Your task to perform on an android device: What's US dollar exchange rate against the Japanese Yen? Image 0: 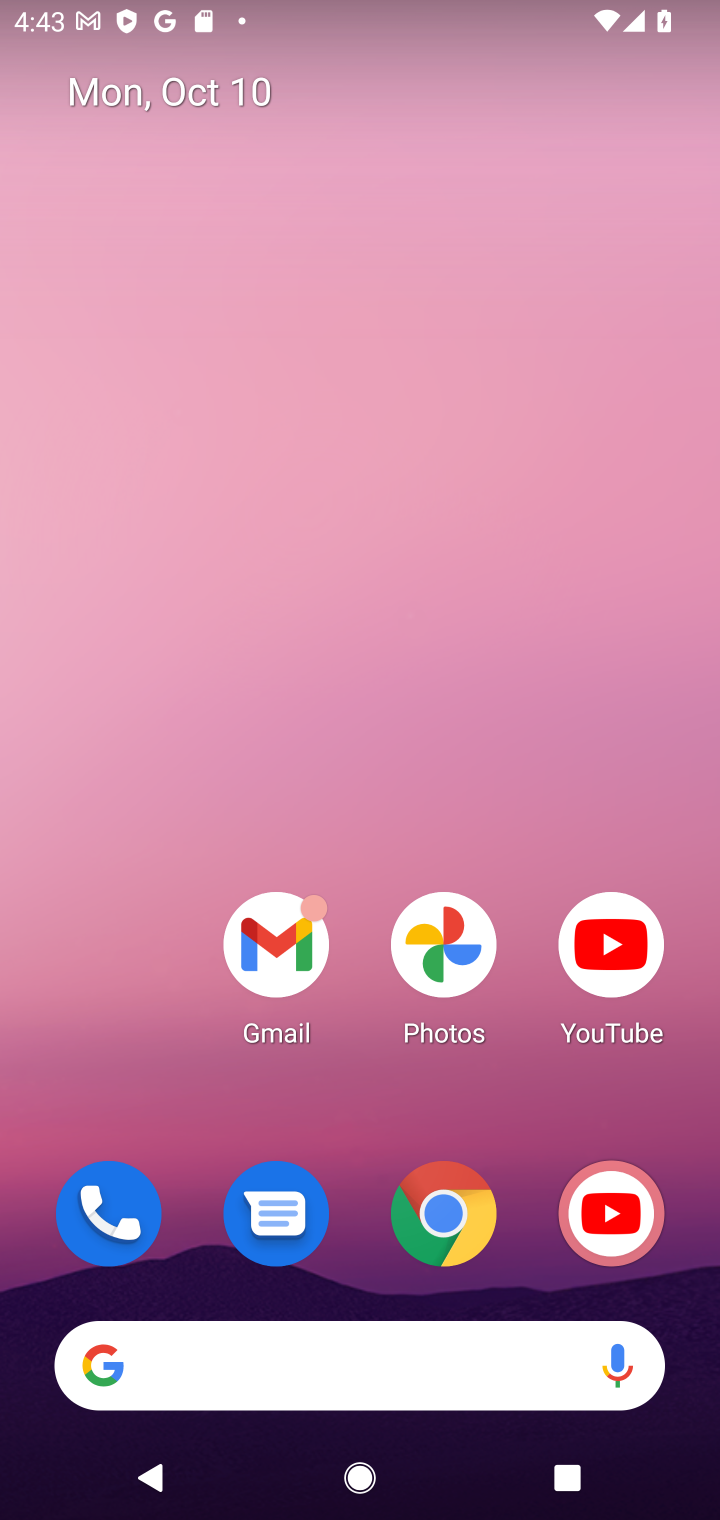
Step 0: click (358, 1364)
Your task to perform on an android device: What's US dollar exchange rate against the Japanese Yen? Image 1: 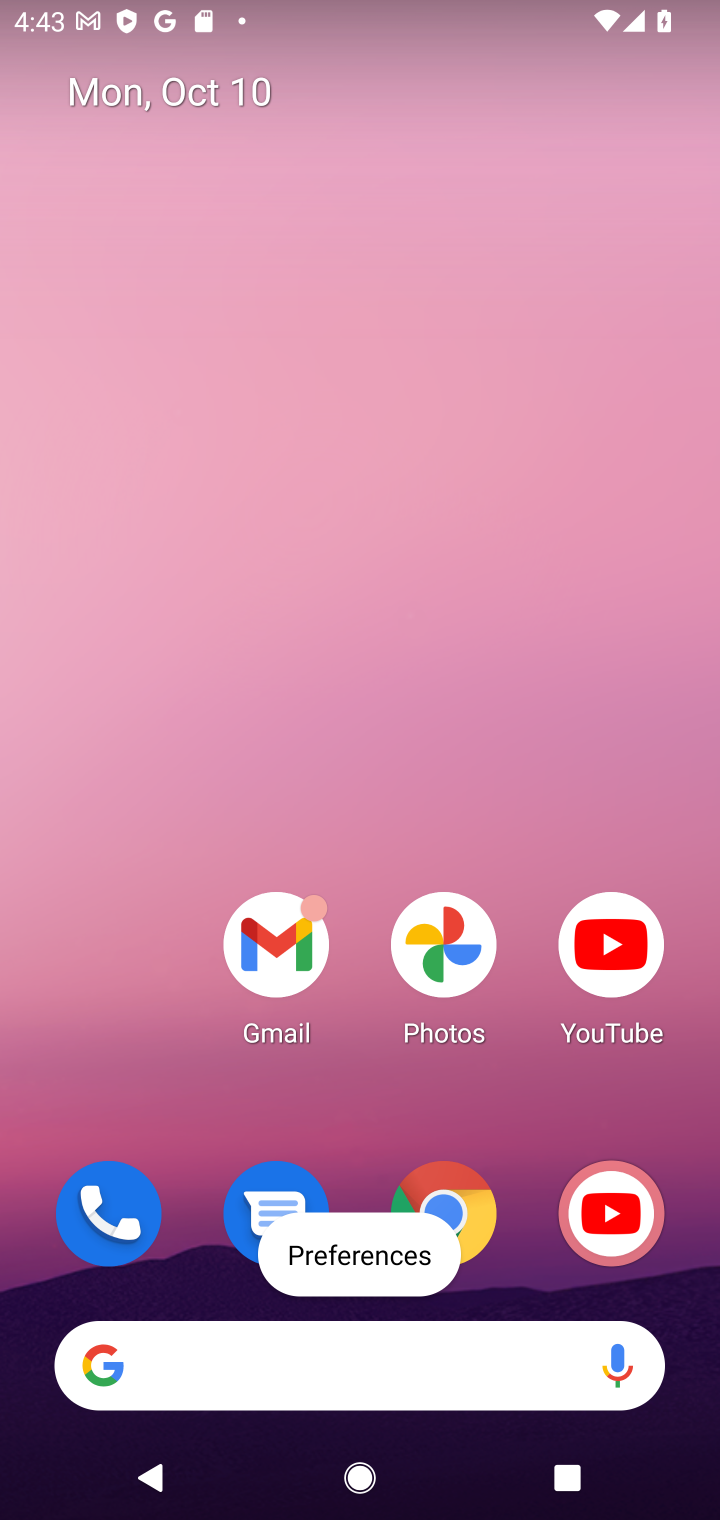
Step 1: click (351, 1380)
Your task to perform on an android device: What's US dollar exchange rate against the Japanese Yen? Image 2: 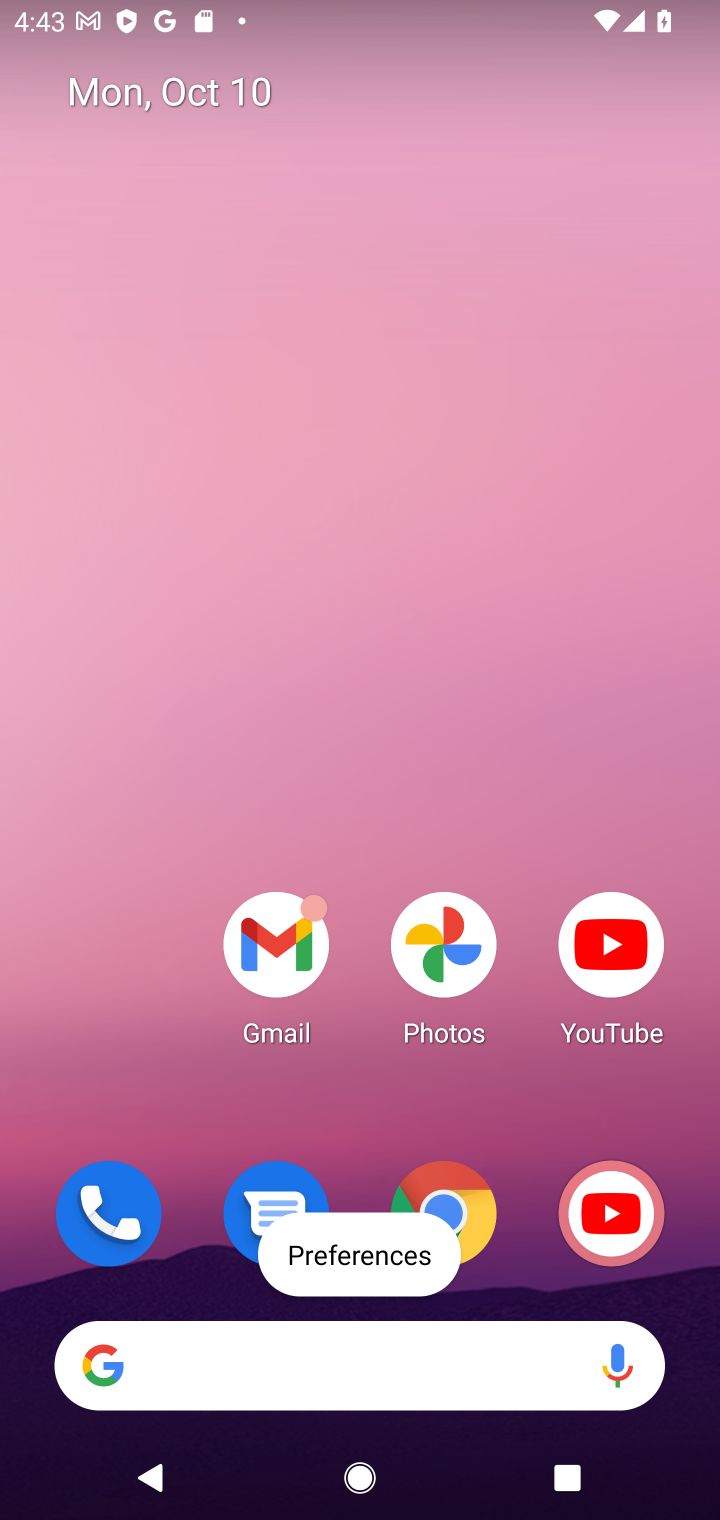
Step 2: click (351, 1380)
Your task to perform on an android device: What's US dollar exchange rate against the Japanese Yen? Image 3: 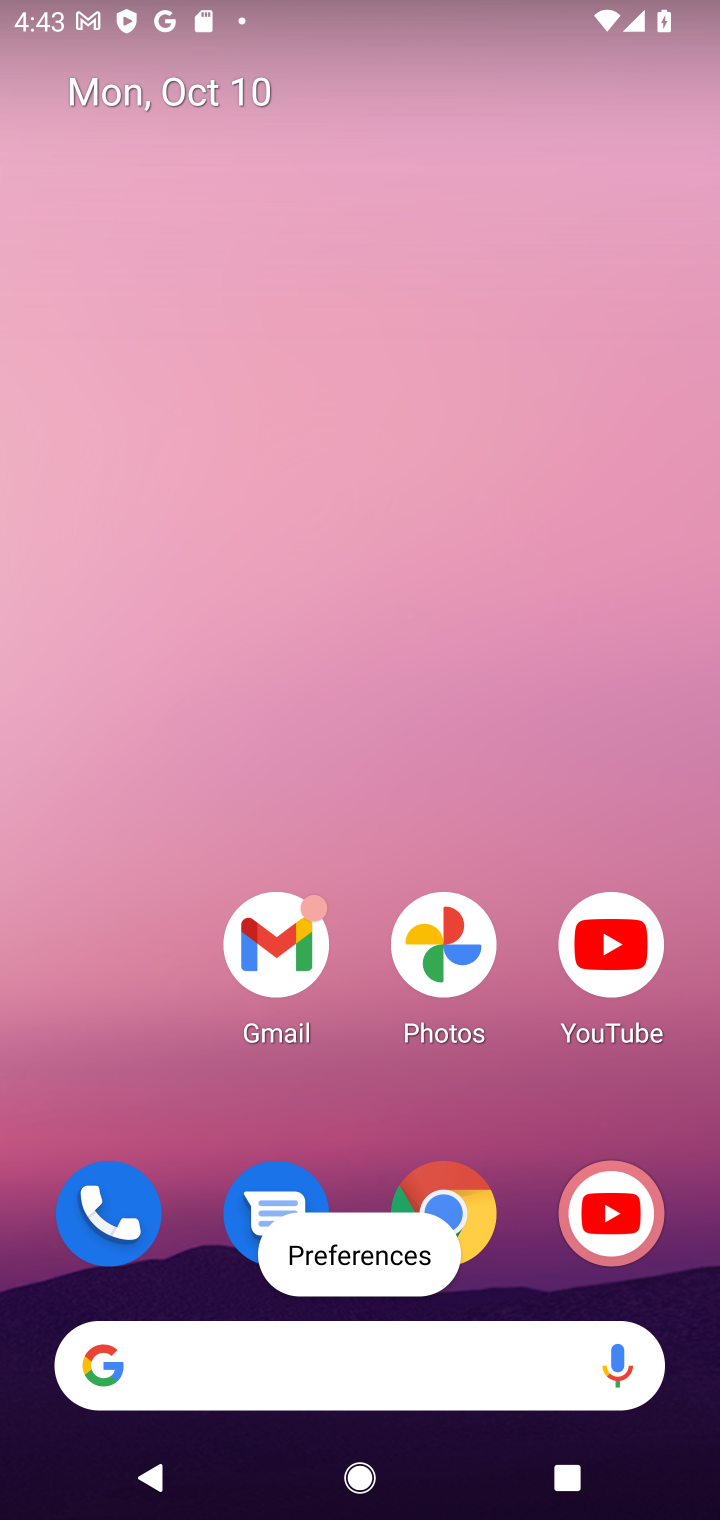
Step 3: click (351, 1380)
Your task to perform on an android device: What's US dollar exchange rate against the Japanese Yen? Image 4: 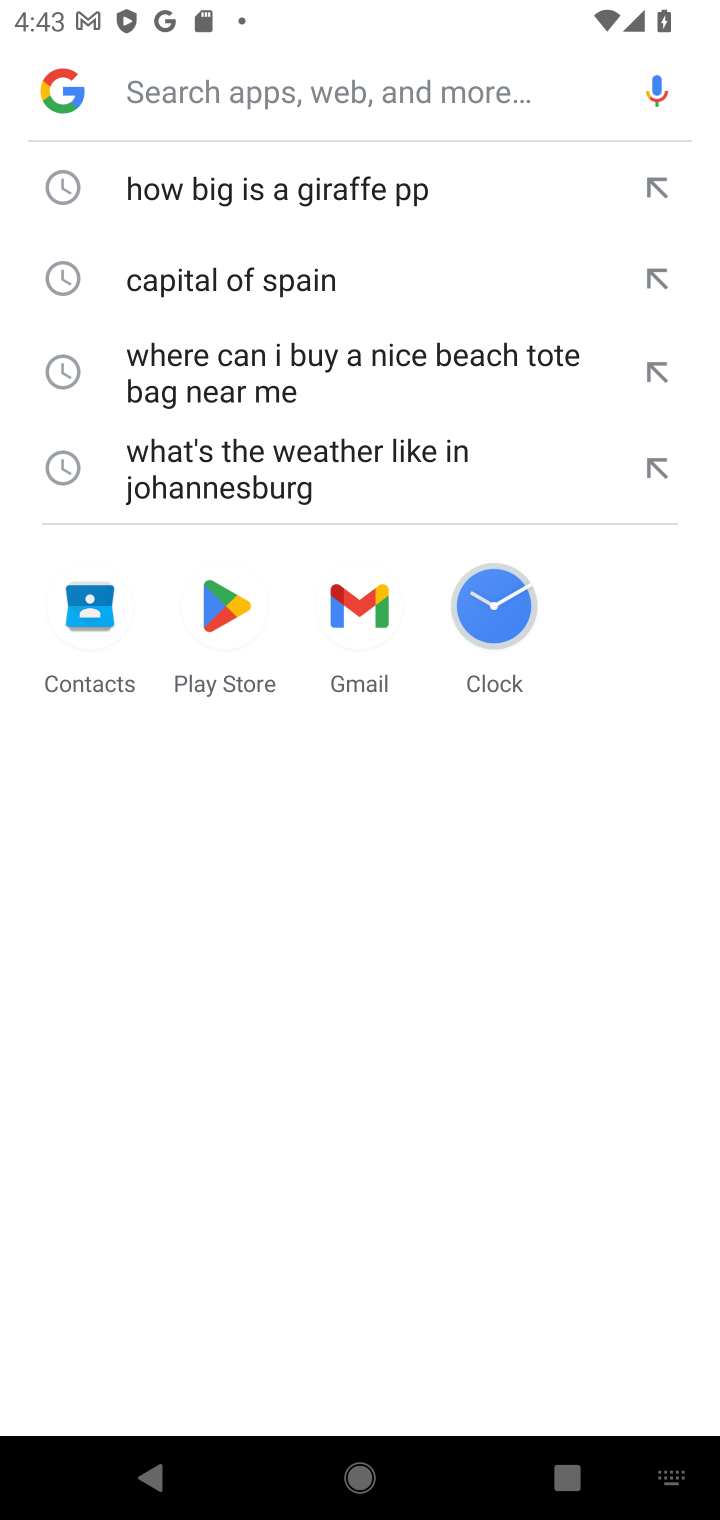
Step 4: type "US dollar exchange rate against the Japanese Yen"
Your task to perform on an android device: What's US dollar exchange rate against the Japanese Yen? Image 5: 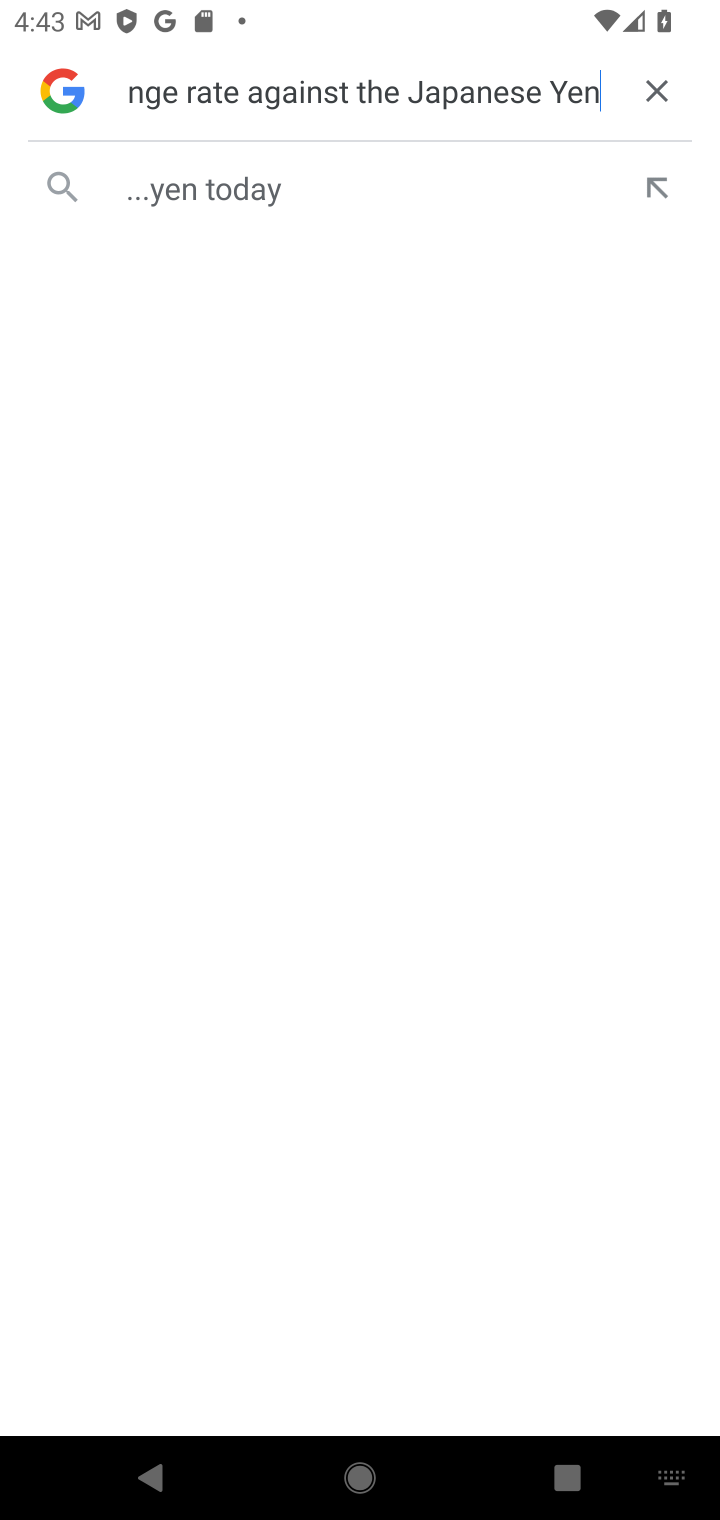
Step 5: click (222, 192)
Your task to perform on an android device: What's US dollar exchange rate against the Japanese Yen? Image 6: 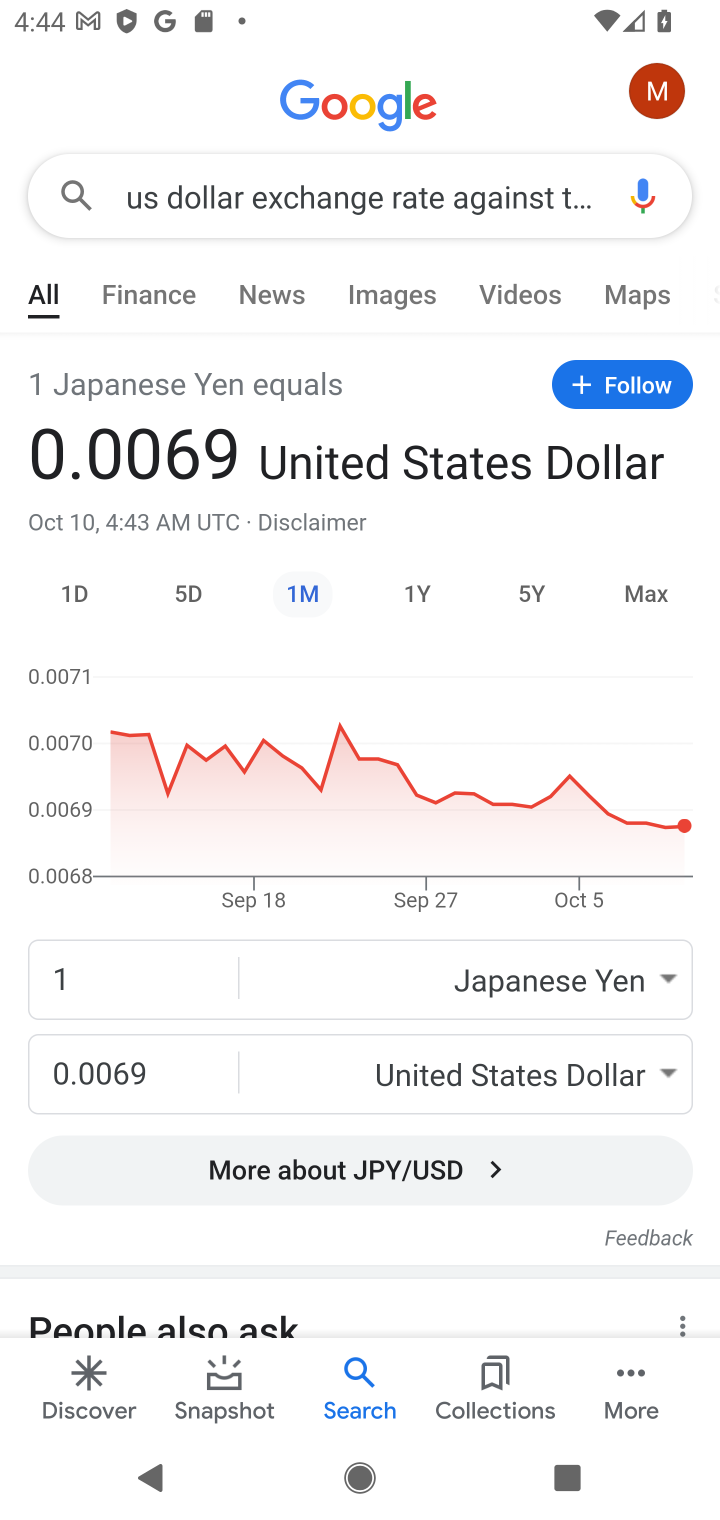
Step 6: task complete